Your task to perform on an android device: open a new tab in the chrome app Image 0: 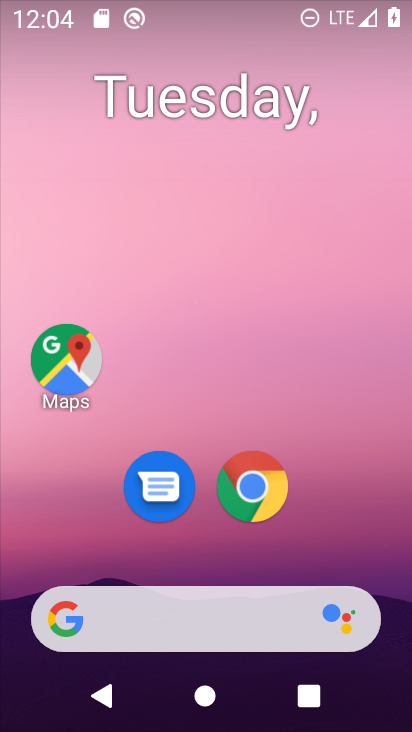
Step 0: click (329, 394)
Your task to perform on an android device: open a new tab in the chrome app Image 1: 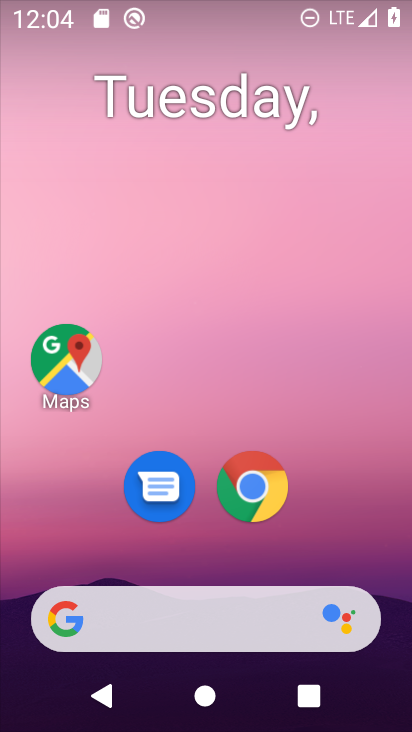
Step 1: click (259, 487)
Your task to perform on an android device: open a new tab in the chrome app Image 2: 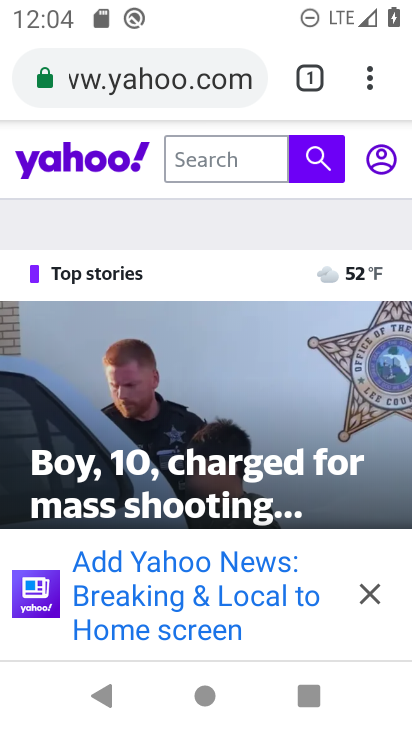
Step 2: click (318, 83)
Your task to perform on an android device: open a new tab in the chrome app Image 3: 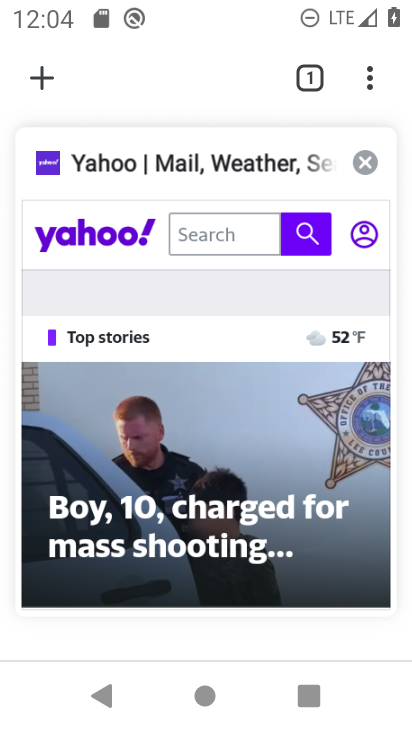
Step 3: click (38, 71)
Your task to perform on an android device: open a new tab in the chrome app Image 4: 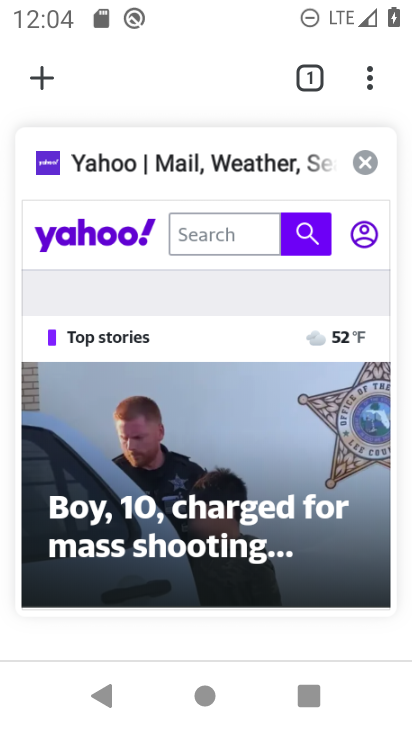
Step 4: click (39, 78)
Your task to perform on an android device: open a new tab in the chrome app Image 5: 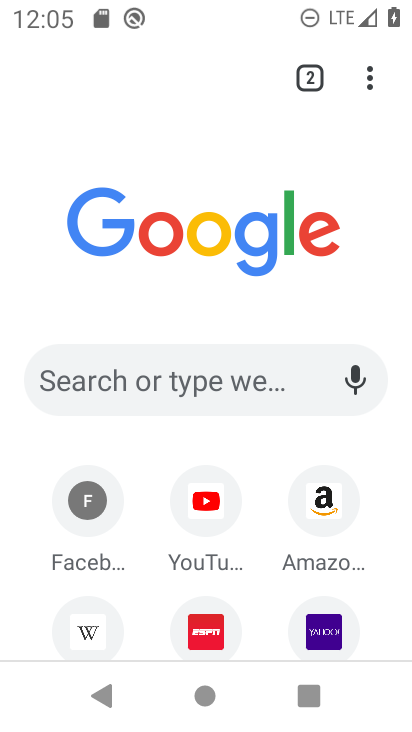
Step 5: task complete